Your task to perform on an android device: Open display settings Image 0: 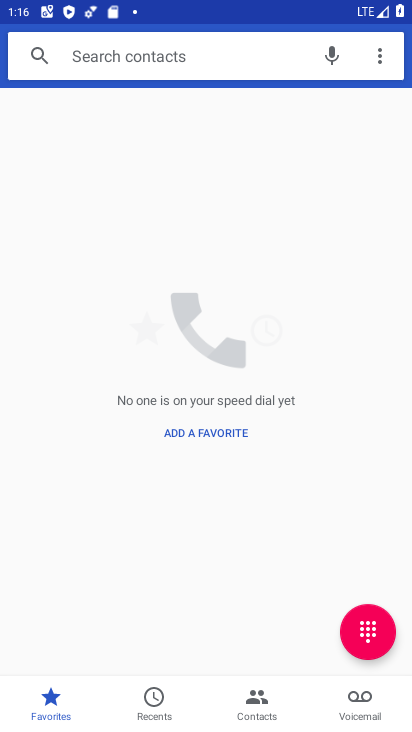
Step 0: press home button
Your task to perform on an android device: Open display settings Image 1: 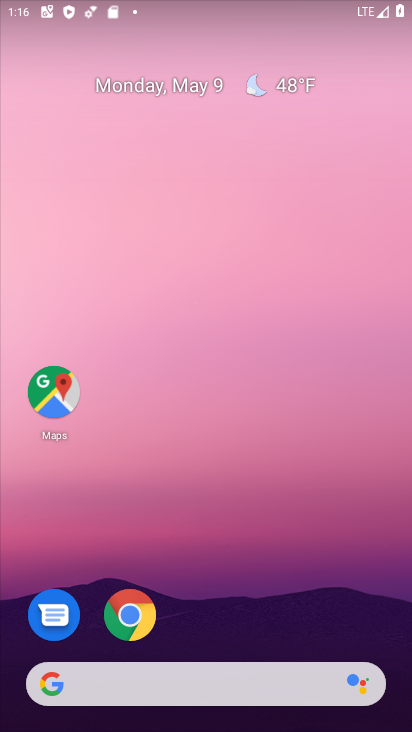
Step 1: drag from (368, 625) to (361, 133)
Your task to perform on an android device: Open display settings Image 2: 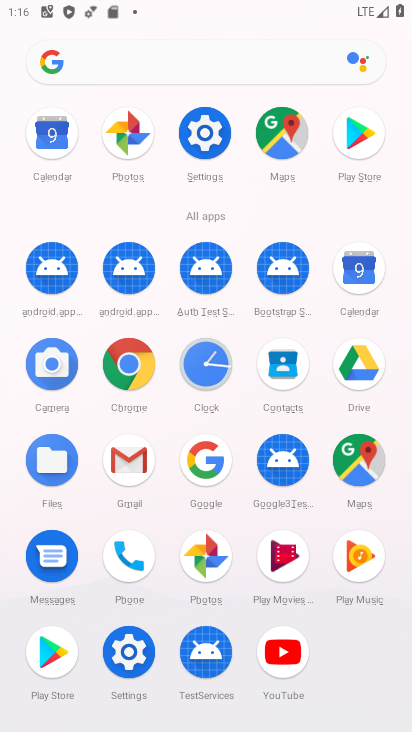
Step 2: click (128, 653)
Your task to perform on an android device: Open display settings Image 3: 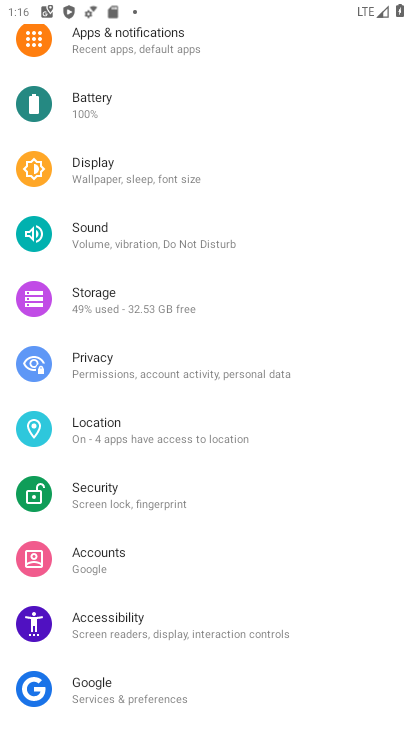
Step 3: click (88, 163)
Your task to perform on an android device: Open display settings Image 4: 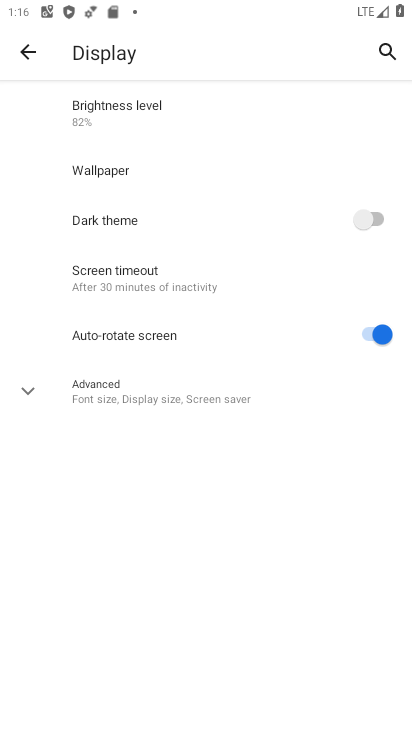
Step 4: click (23, 386)
Your task to perform on an android device: Open display settings Image 5: 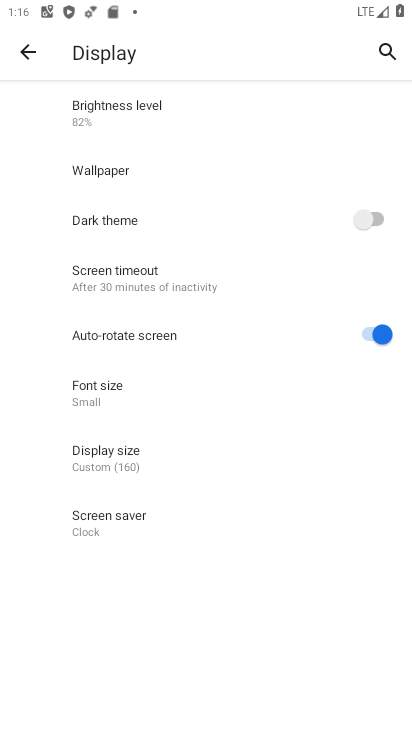
Step 5: task complete